Your task to perform on an android device: turn off javascript in the chrome app Image 0: 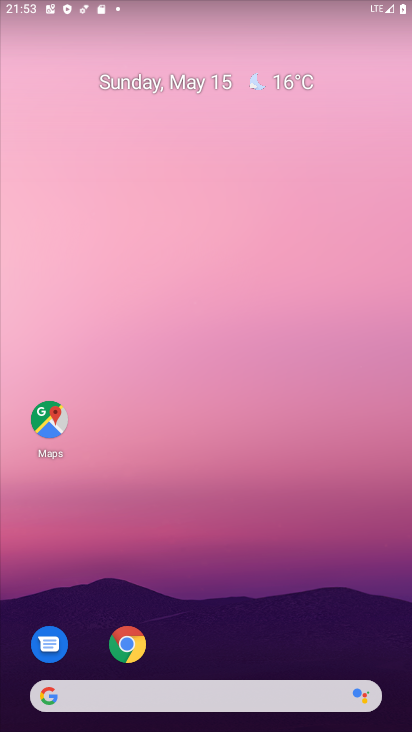
Step 0: click (129, 640)
Your task to perform on an android device: turn off javascript in the chrome app Image 1: 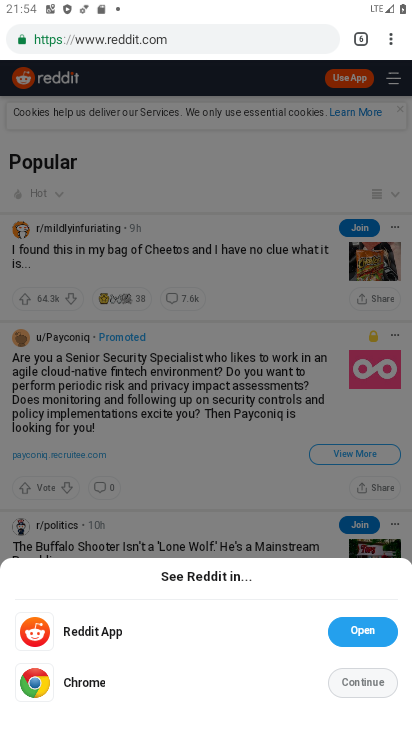
Step 1: drag from (394, 34) to (259, 432)
Your task to perform on an android device: turn off javascript in the chrome app Image 2: 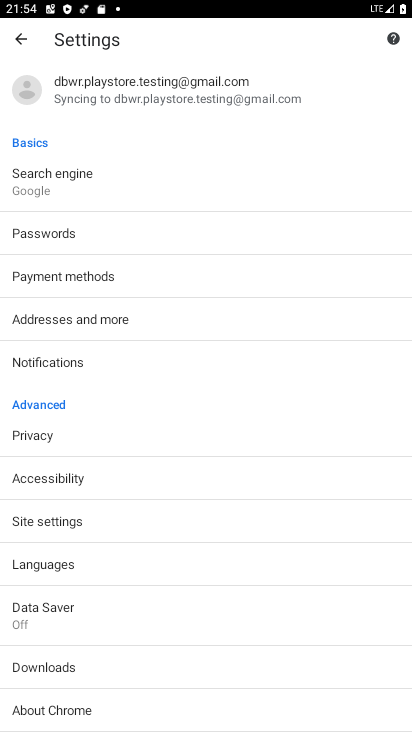
Step 2: click (96, 527)
Your task to perform on an android device: turn off javascript in the chrome app Image 3: 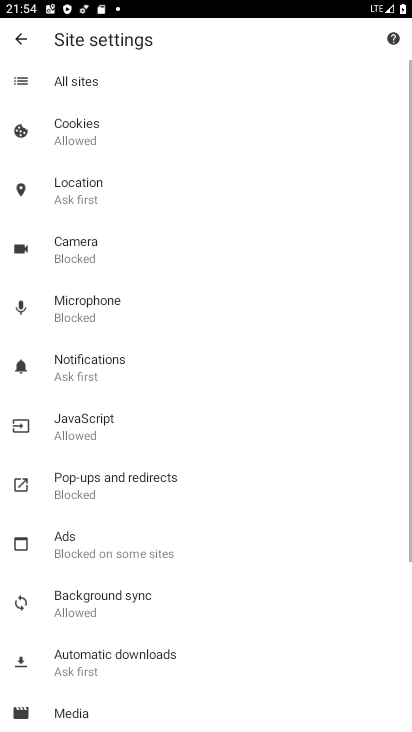
Step 3: click (80, 423)
Your task to perform on an android device: turn off javascript in the chrome app Image 4: 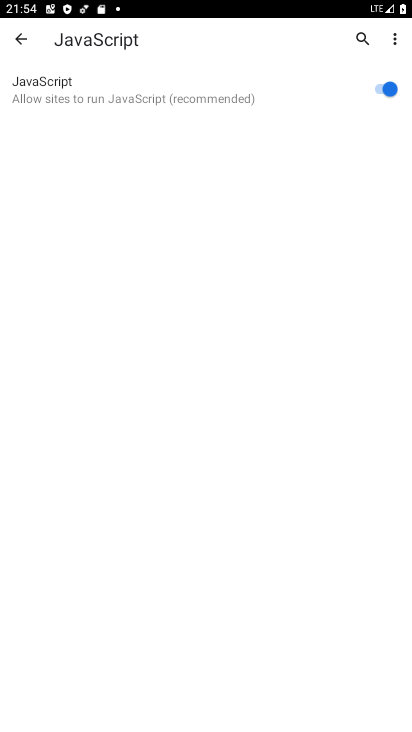
Step 4: click (389, 86)
Your task to perform on an android device: turn off javascript in the chrome app Image 5: 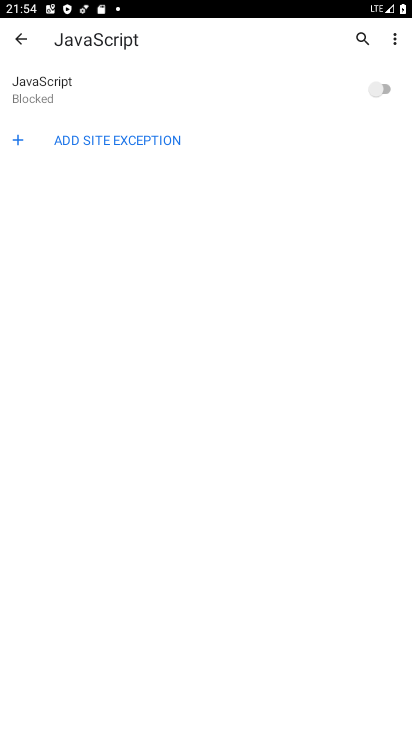
Step 5: task complete